Your task to perform on an android device: change your default location settings in chrome Image 0: 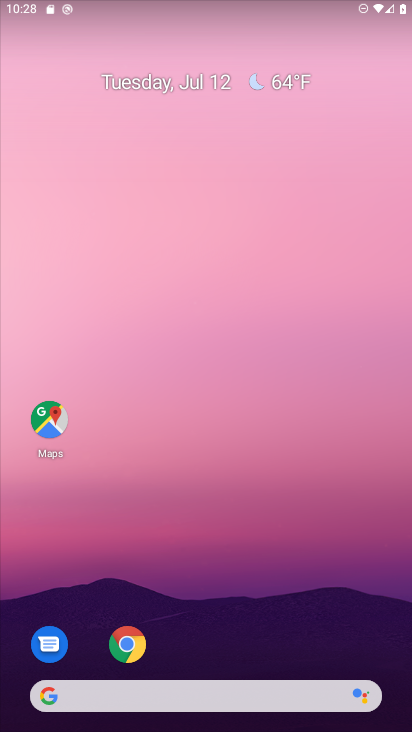
Step 0: click (137, 655)
Your task to perform on an android device: change your default location settings in chrome Image 1: 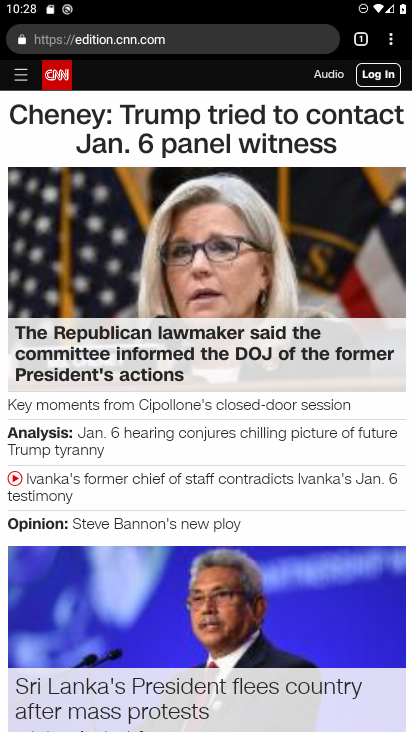
Step 1: click (390, 74)
Your task to perform on an android device: change your default location settings in chrome Image 2: 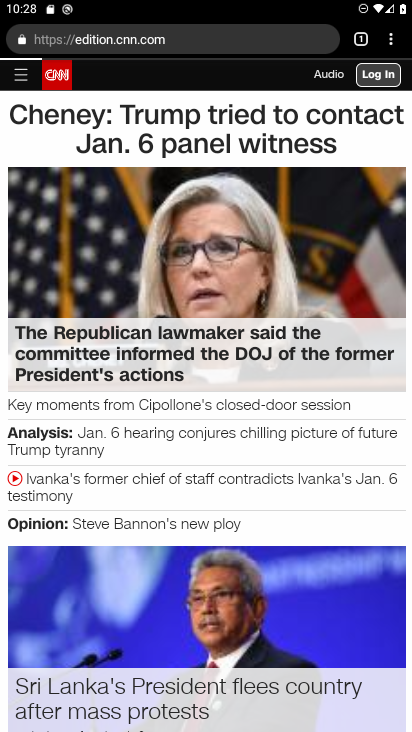
Step 2: click (391, 49)
Your task to perform on an android device: change your default location settings in chrome Image 3: 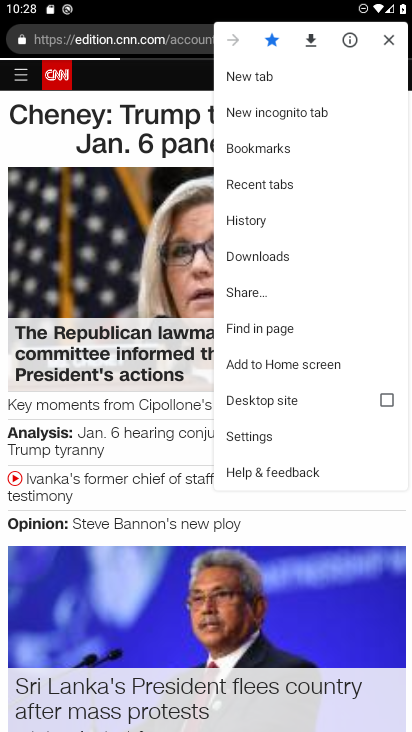
Step 3: click (279, 439)
Your task to perform on an android device: change your default location settings in chrome Image 4: 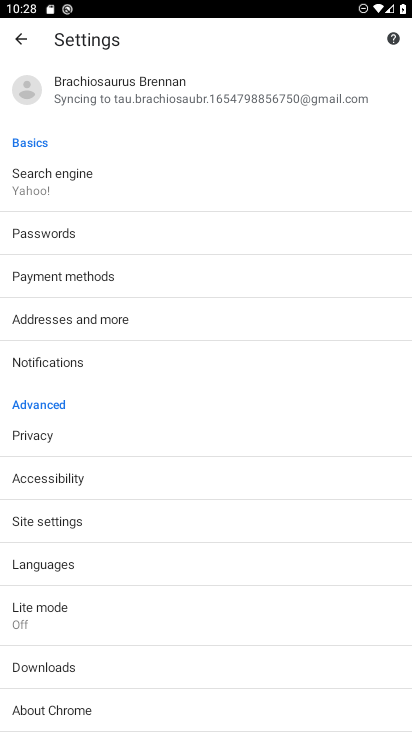
Step 4: click (142, 328)
Your task to perform on an android device: change your default location settings in chrome Image 5: 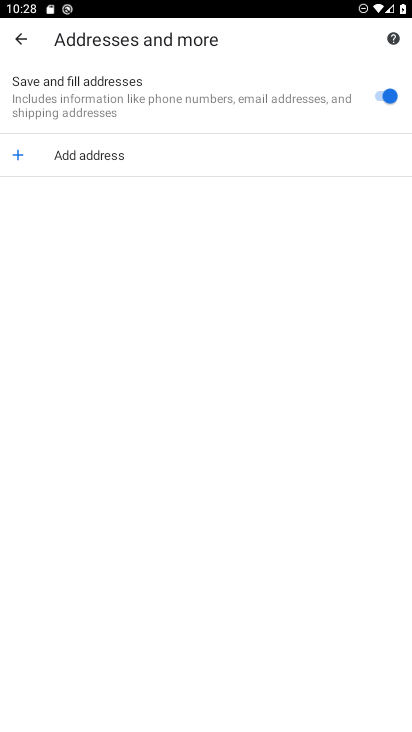
Step 5: task complete